Your task to perform on an android device: toggle javascript in the chrome app Image 0: 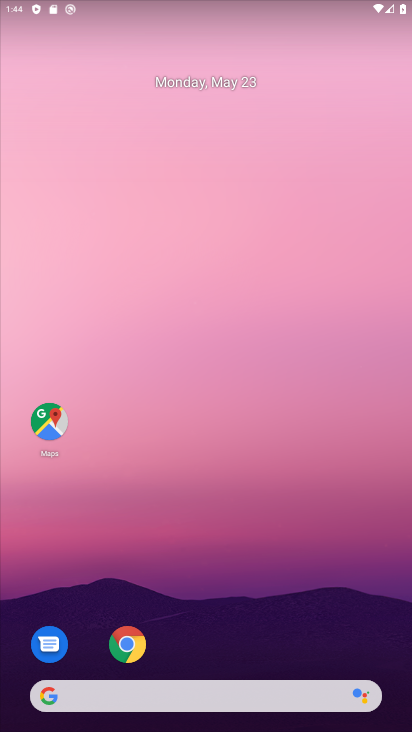
Step 0: drag from (339, 587) to (233, 52)
Your task to perform on an android device: toggle javascript in the chrome app Image 1: 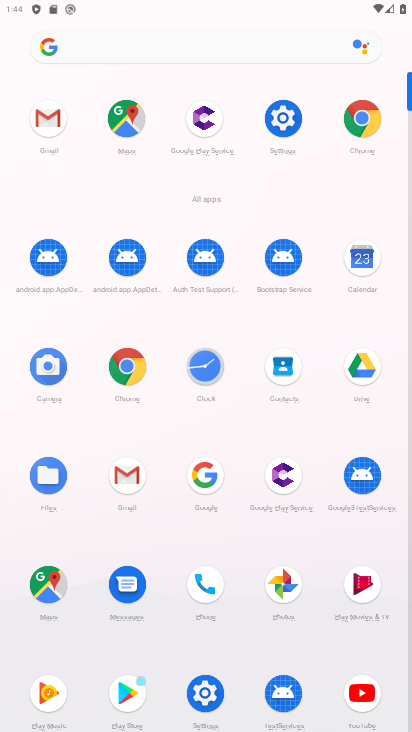
Step 1: click (367, 126)
Your task to perform on an android device: toggle javascript in the chrome app Image 2: 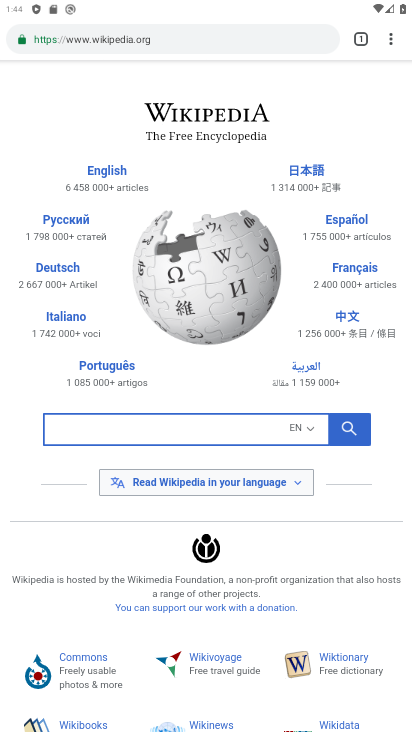
Step 2: drag from (383, 42) to (240, 480)
Your task to perform on an android device: toggle javascript in the chrome app Image 3: 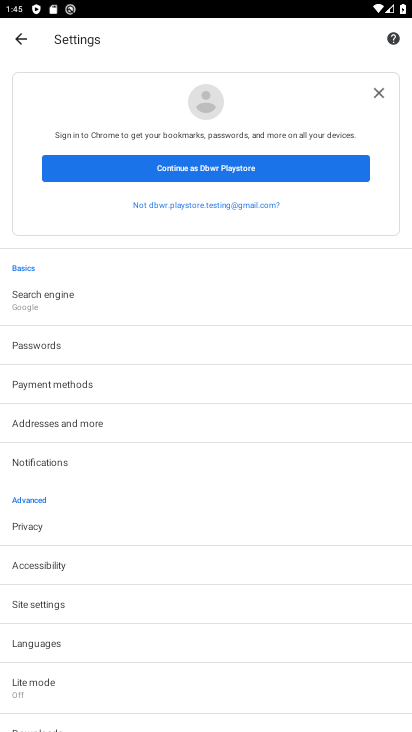
Step 3: click (47, 609)
Your task to perform on an android device: toggle javascript in the chrome app Image 4: 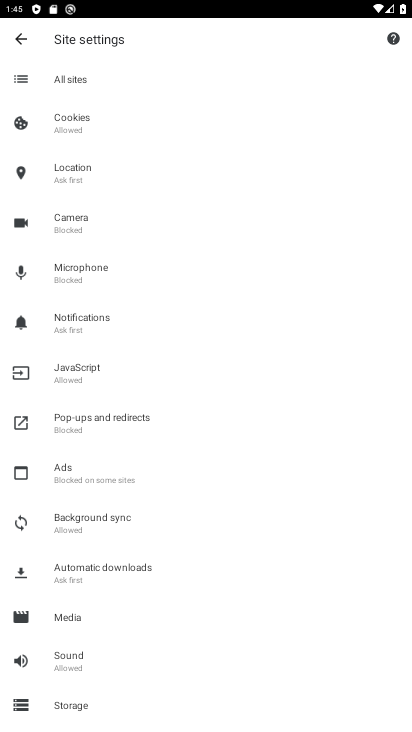
Step 4: click (60, 373)
Your task to perform on an android device: toggle javascript in the chrome app Image 5: 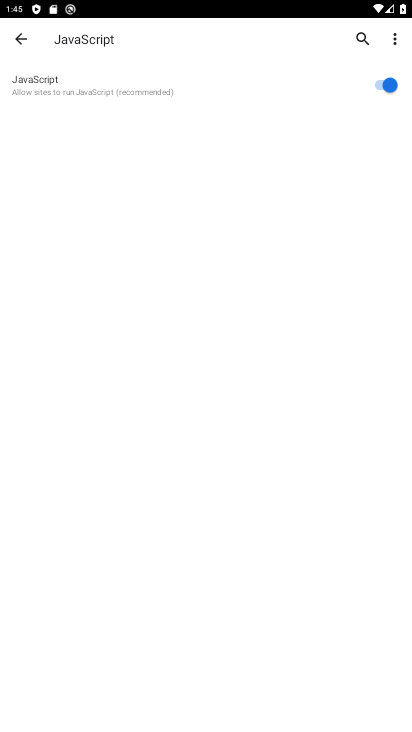
Step 5: click (387, 82)
Your task to perform on an android device: toggle javascript in the chrome app Image 6: 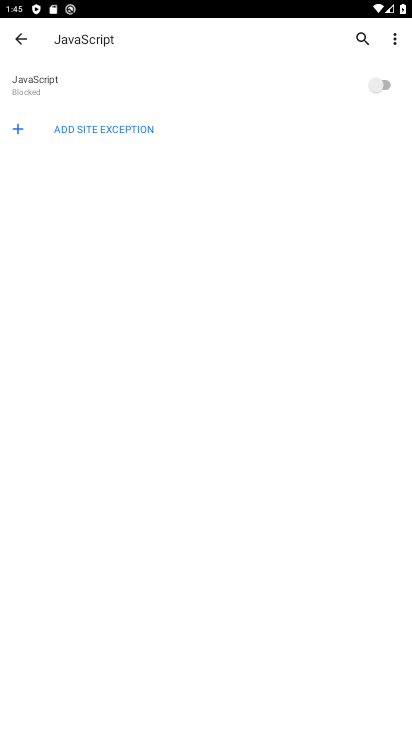
Step 6: task complete